Your task to perform on an android device: turn off data saver in the chrome app Image 0: 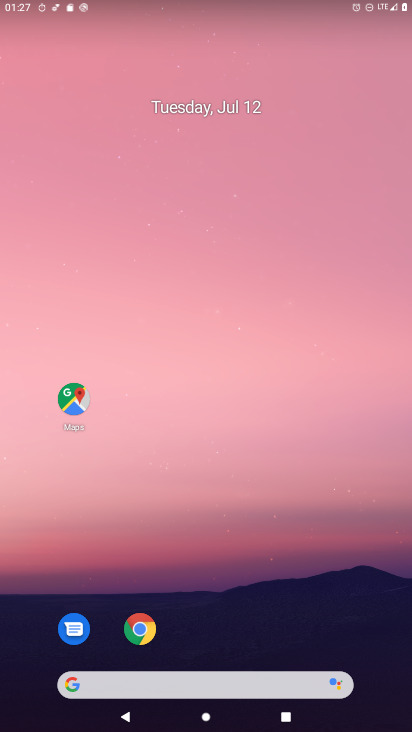
Step 0: click (141, 628)
Your task to perform on an android device: turn off data saver in the chrome app Image 1: 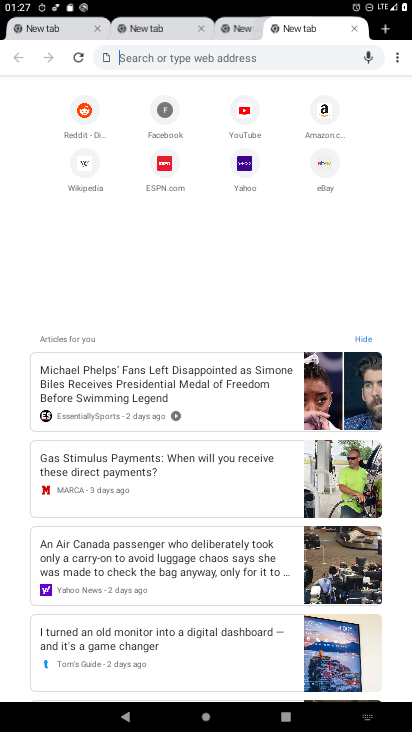
Step 1: click (400, 57)
Your task to perform on an android device: turn off data saver in the chrome app Image 2: 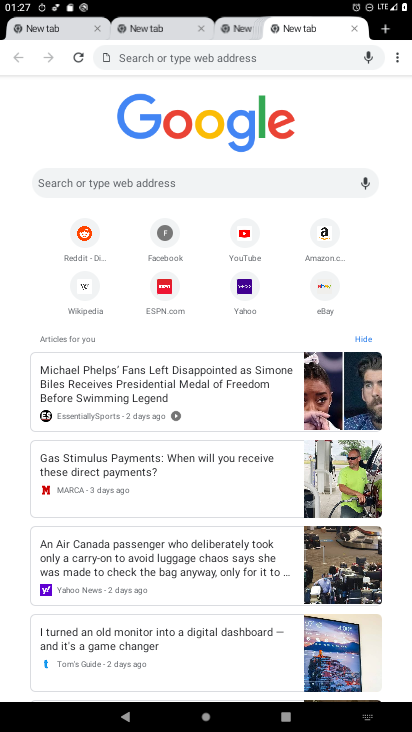
Step 2: click (395, 60)
Your task to perform on an android device: turn off data saver in the chrome app Image 3: 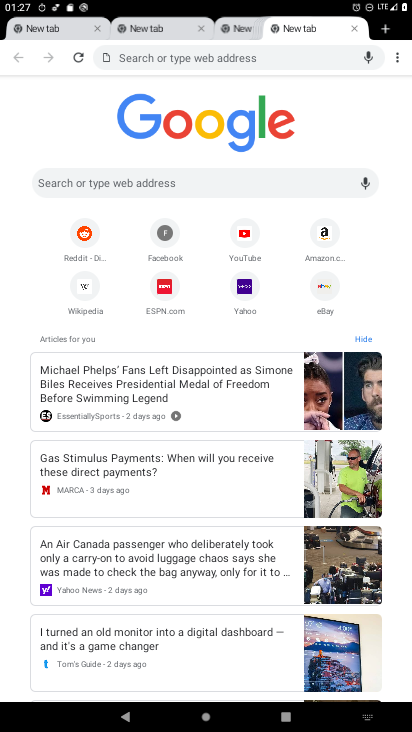
Step 3: click (393, 57)
Your task to perform on an android device: turn off data saver in the chrome app Image 4: 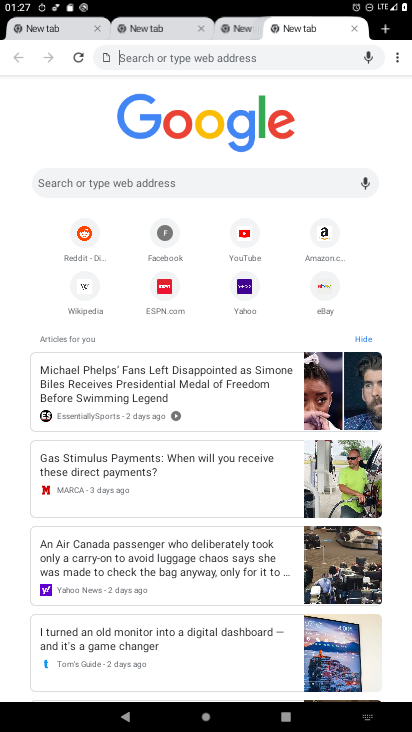
Step 4: task complete